Your task to perform on an android device: Open Yahoo.com Image 0: 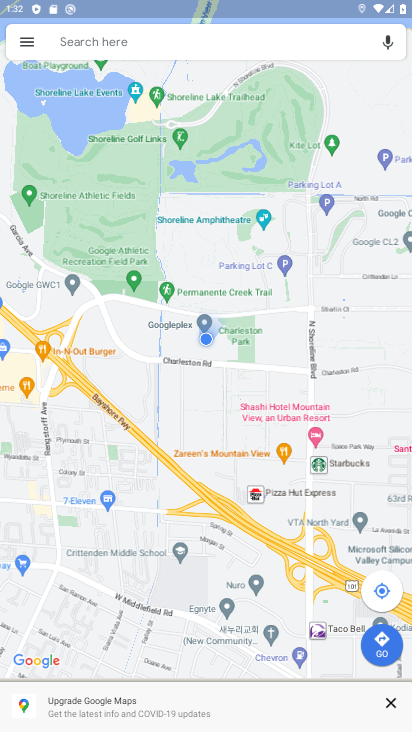
Step 0: press home button
Your task to perform on an android device: Open Yahoo.com Image 1: 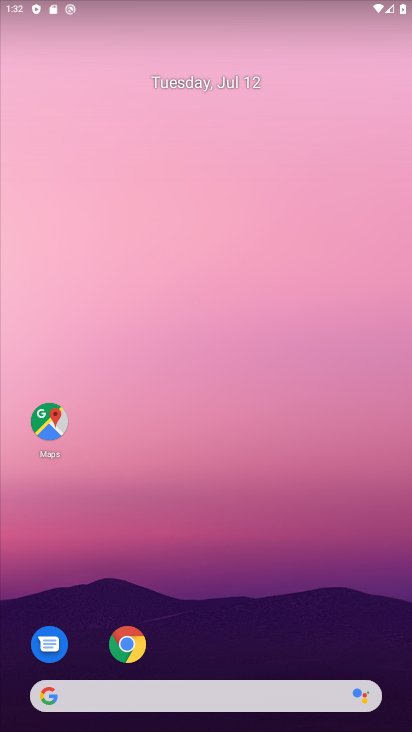
Step 1: click (130, 644)
Your task to perform on an android device: Open Yahoo.com Image 2: 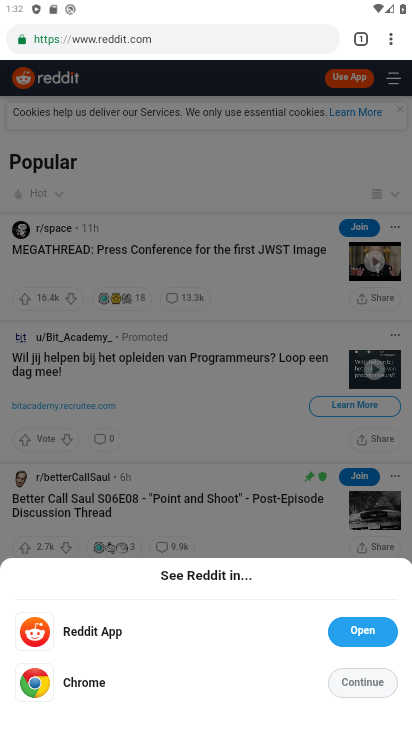
Step 2: click (362, 34)
Your task to perform on an android device: Open Yahoo.com Image 3: 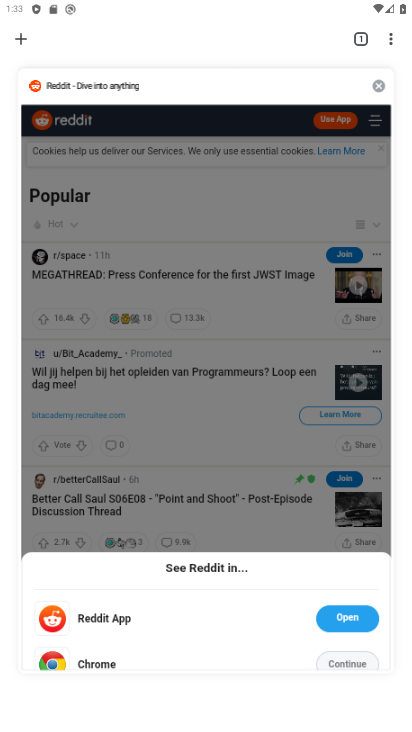
Step 3: click (22, 40)
Your task to perform on an android device: Open Yahoo.com Image 4: 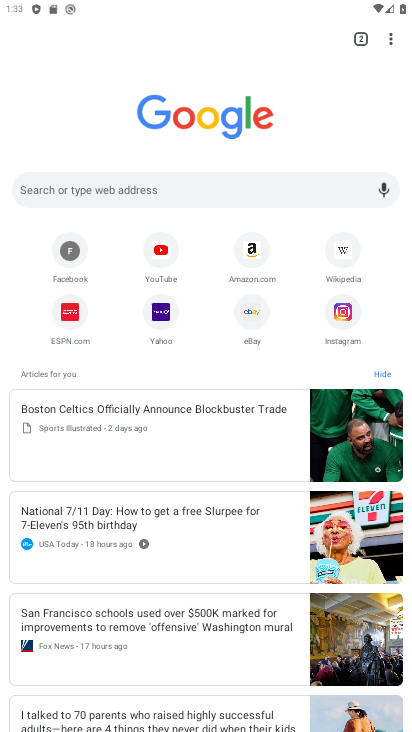
Step 4: click (161, 297)
Your task to perform on an android device: Open Yahoo.com Image 5: 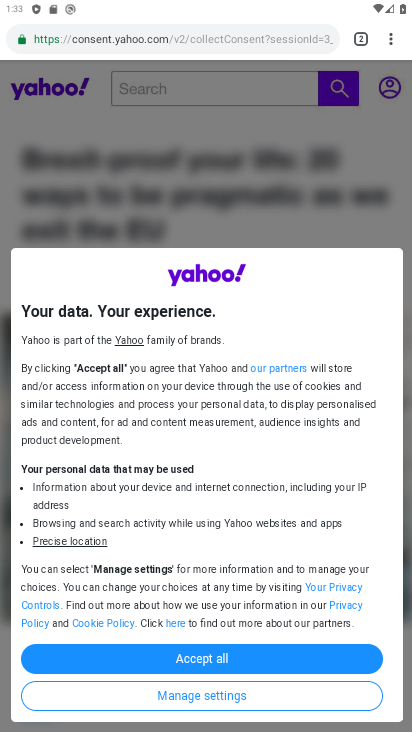
Step 5: click (248, 656)
Your task to perform on an android device: Open Yahoo.com Image 6: 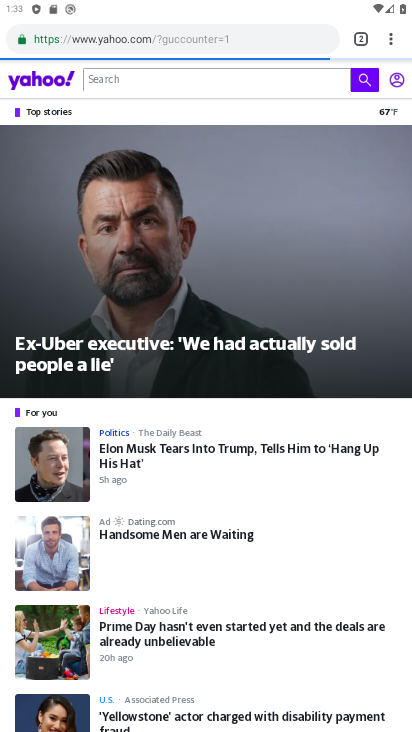
Step 6: task complete